Your task to perform on an android device: Open the calendar app, open the side menu, and click the "Day" option Image 0: 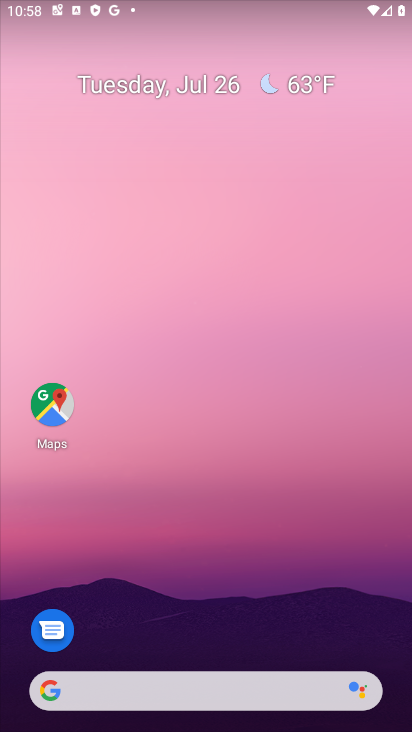
Step 0: drag from (296, 481) to (309, 15)
Your task to perform on an android device: Open the calendar app, open the side menu, and click the "Day" option Image 1: 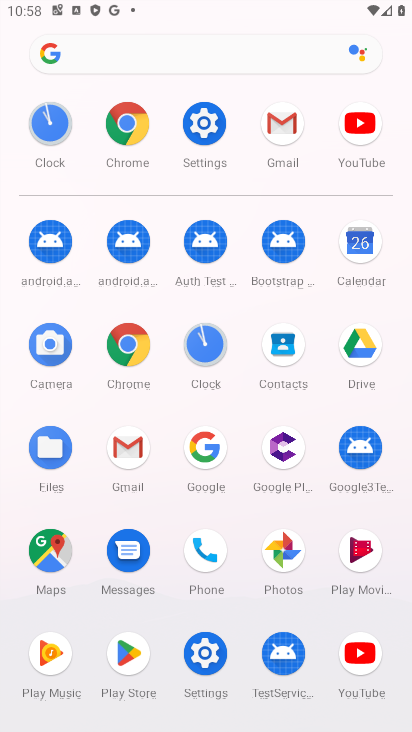
Step 1: click (359, 252)
Your task to perform on an android device: Open the calendar app, open the side menu, and click the "Day" option Image 2: 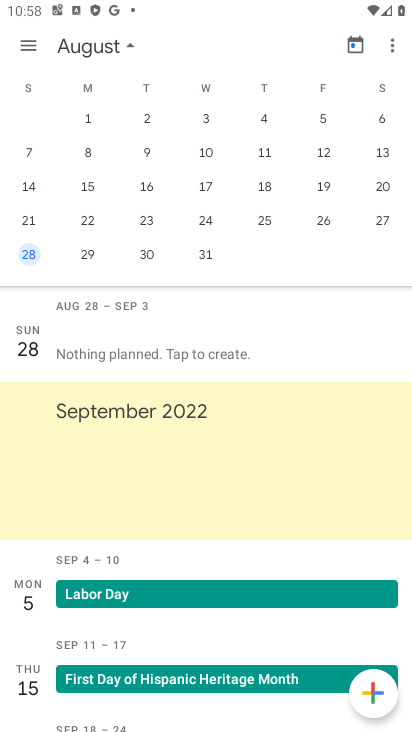
Step 2: click (14, 36)
Your task to perform on an android device: Open the calendar app, open the side menu, and click the "Day" option Image 3: 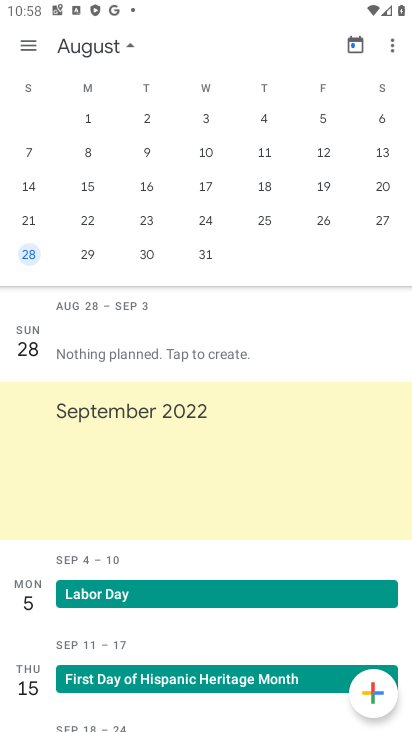
Step 3: click (35, 41)
Your task to perform on an android device: Open the calendar app, open the side menu, and click the "Day" option Image 4: 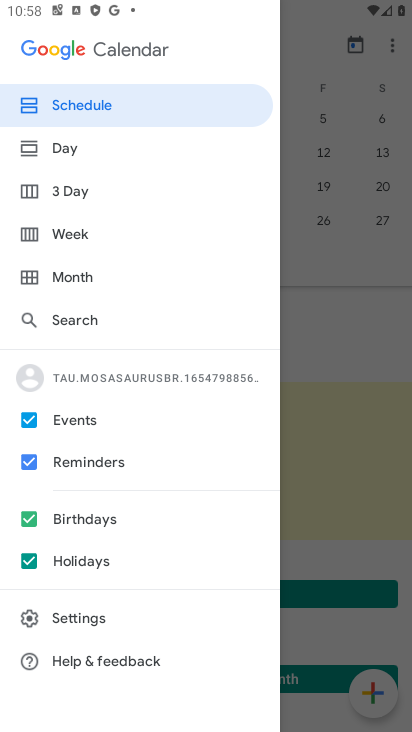
Step 4: click (67, 137)
Your task to perform on an android device: Open the calendar app, open the side menu, and click the "Day" option Image 5: 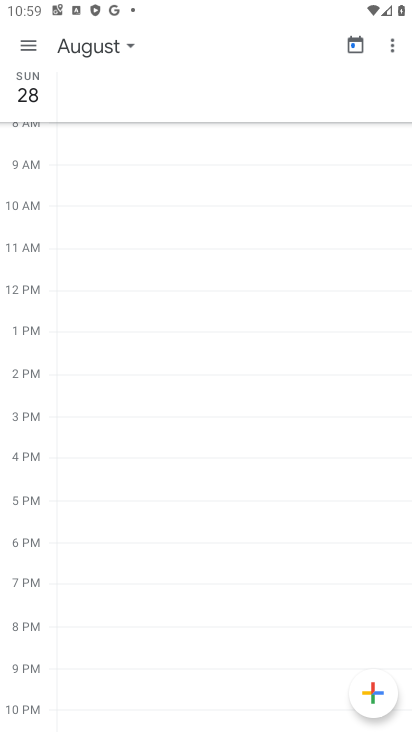
Step 5: task complete